Your task to perform on an android device: Toggle the flashlight Image 0: 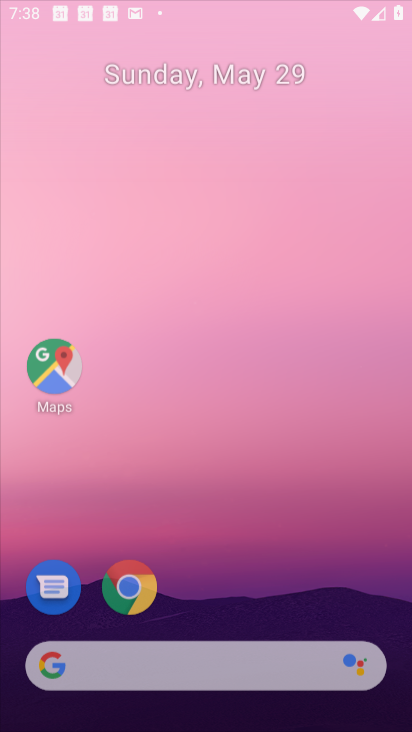
Step 0: click (288, 73)
Your task to perform on an android device: Toggle the flashlight Image 1: 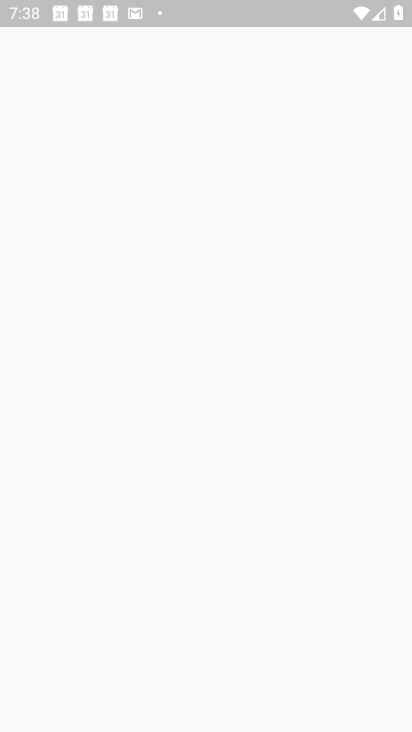
Step 1: click (154, 594)
Your task to perform on an android device: Toggle the flashlight Image 2: 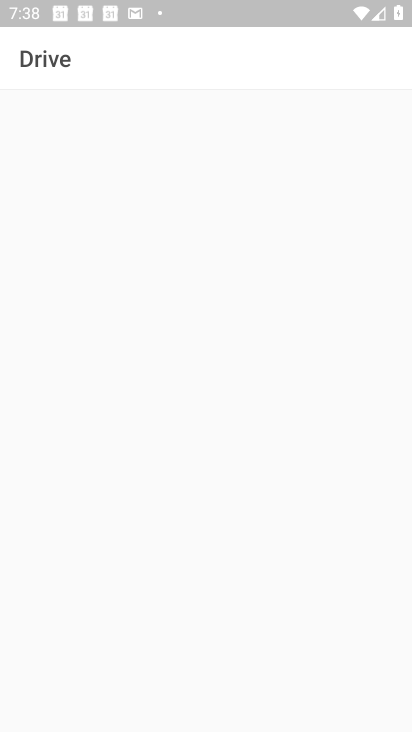
Step 2: press home button
Your task to perform on an android device: Toggle the flashlight Image 3: 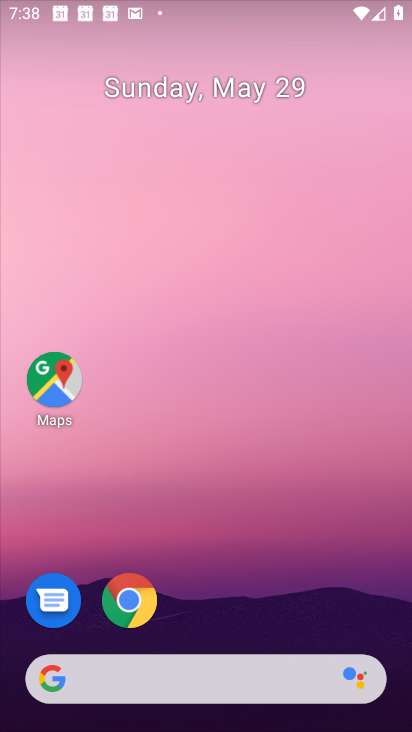
Step 3: drag from (321, 586) to (336, 206)
Your task to perform on an android device: Toggle the flashlight Image 4: 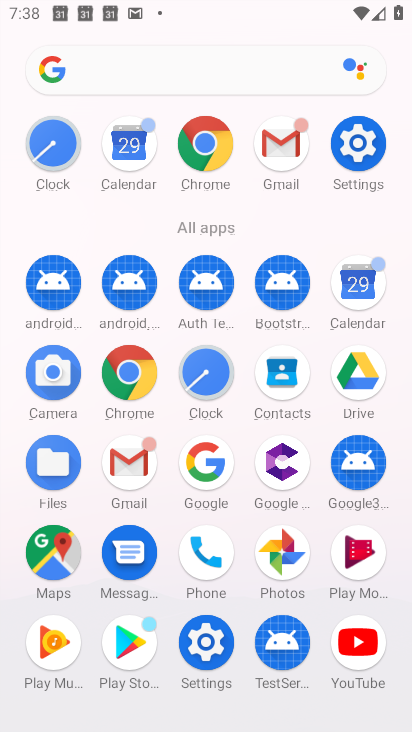
Step 4: click (384, 168)
Your task to perform on an android device: Toggle the flashlight Image 5: 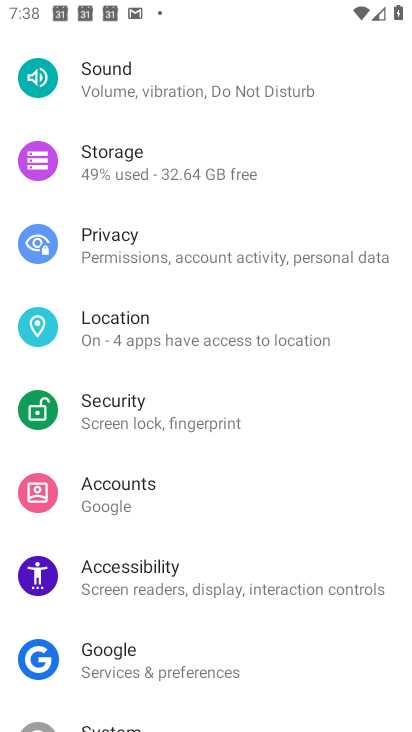
Step 5: drag from (293, 153) to (296, 570)
Your task to perform on an android device: Toggle the flashlight Image 6: 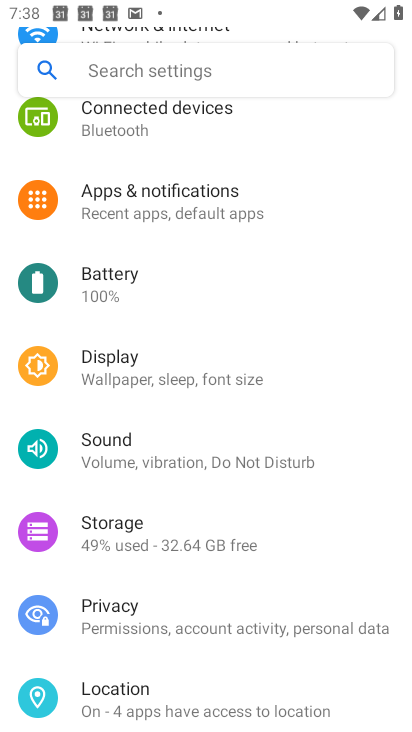
Step 6: click (237, 89)
Your task to perform on an android device: Toggle the flashlight Image 7: 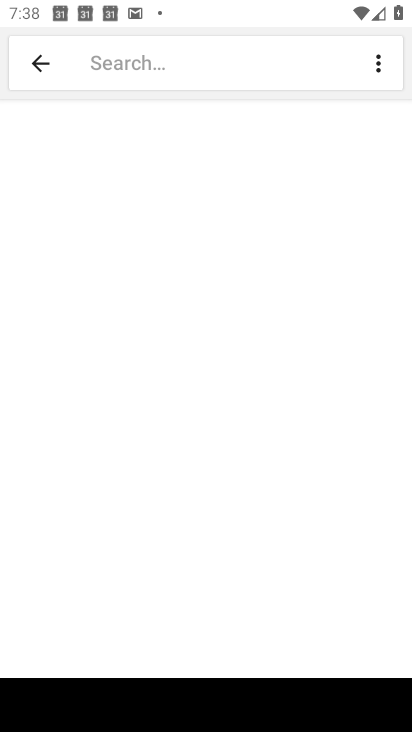
Step 7: type "flashlight"
Your task to perform on an android device: Toggle the flashlight Image 8: 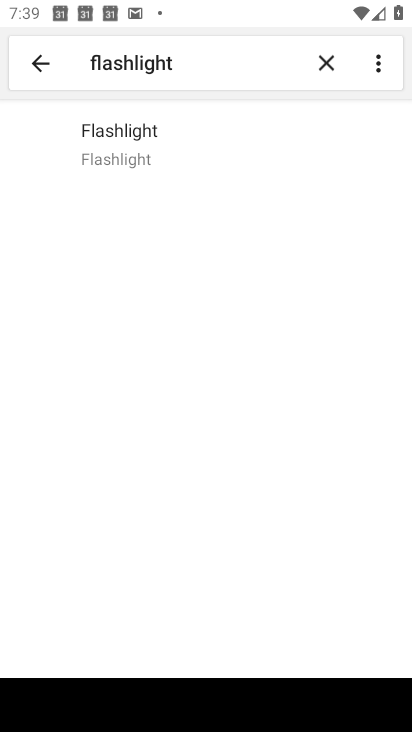
Step 8: click (199, 147)
Your task to perform on an android device: Toggle the flashlight Image 9: 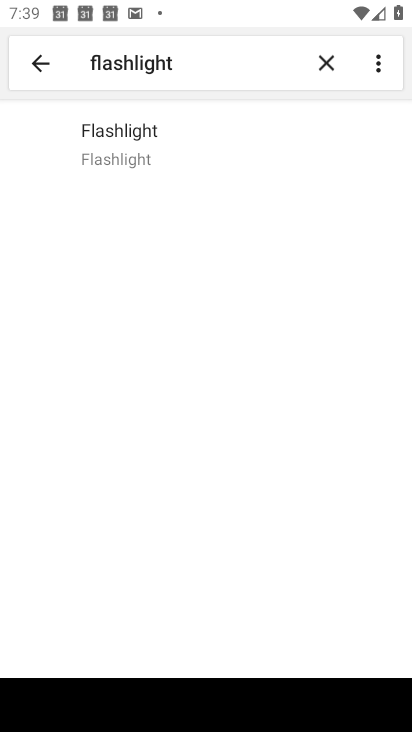
Step 9: task complete